Your task to perform on an android device: Open CNN.com Image 0: 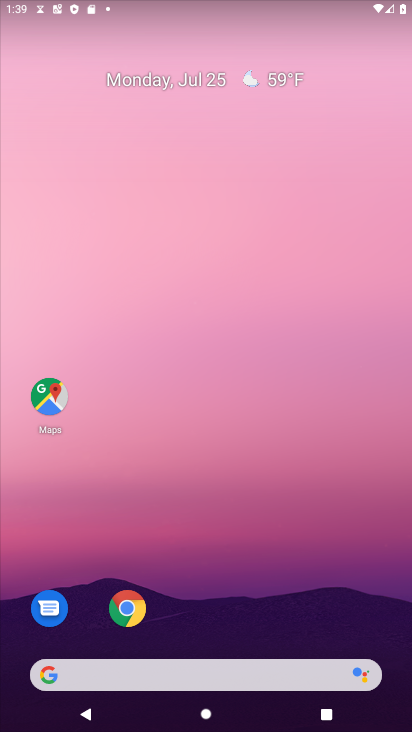
Step 0: drag from (260, 589) to (148, 99)
Your task to perform on an android device: Open CNN.com Image 1: 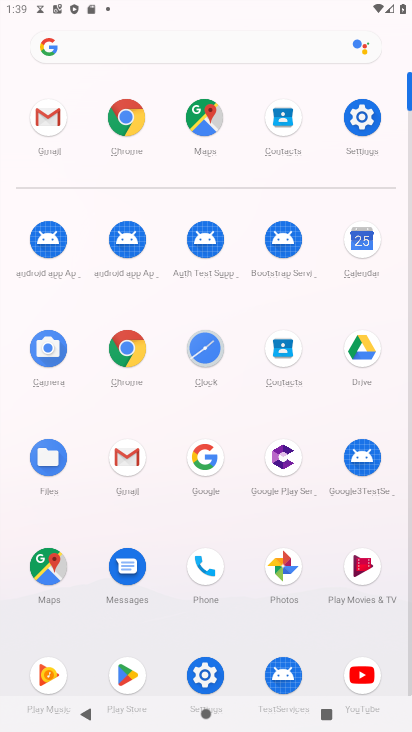
Step 1: click (123, 350)
Your task to perform on an android device: Open CNN.com Image 2: 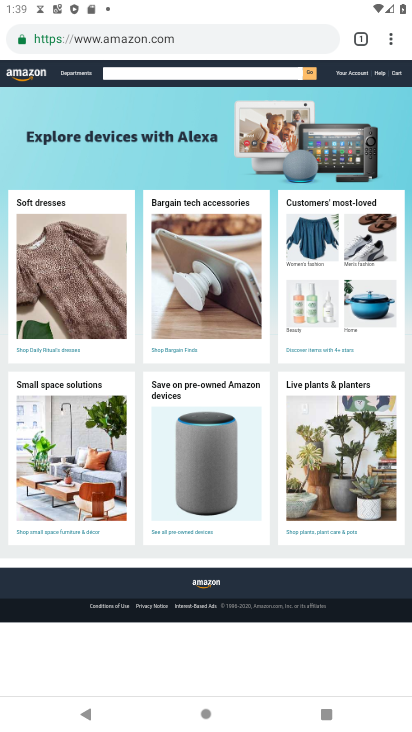
Step 2: click (365, 38)
Your task to perform on an android device: Open CNN.com Image 3: 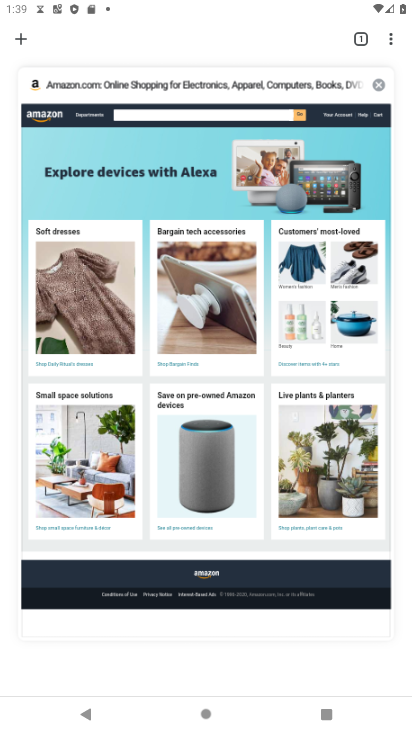
Step 3: click (19, 46)
Your task to perform on an android device: Open CNN.com Image 4: 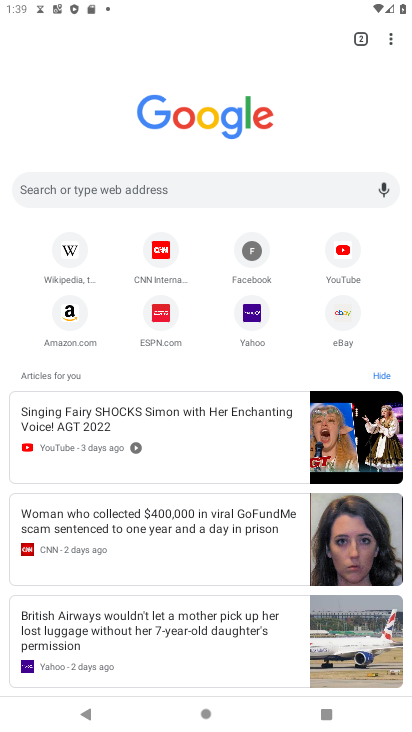
Step 4: click (171, 248)
Your task to perform on an android device: Open CNN.com Image 5: 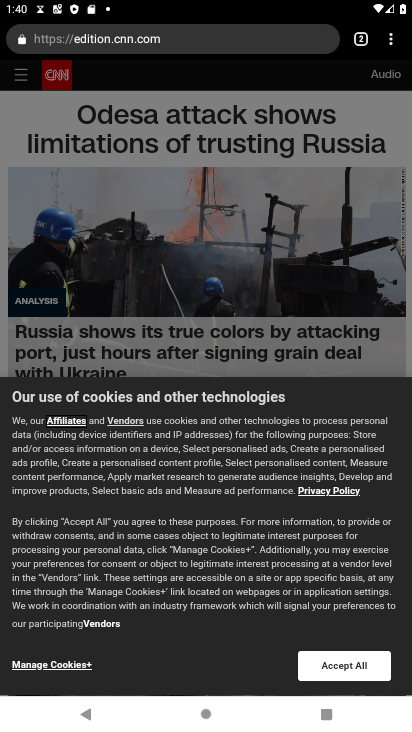
Step 5: task complete